Your task to perform on an android device: install app "Google Calendar" Image 0: 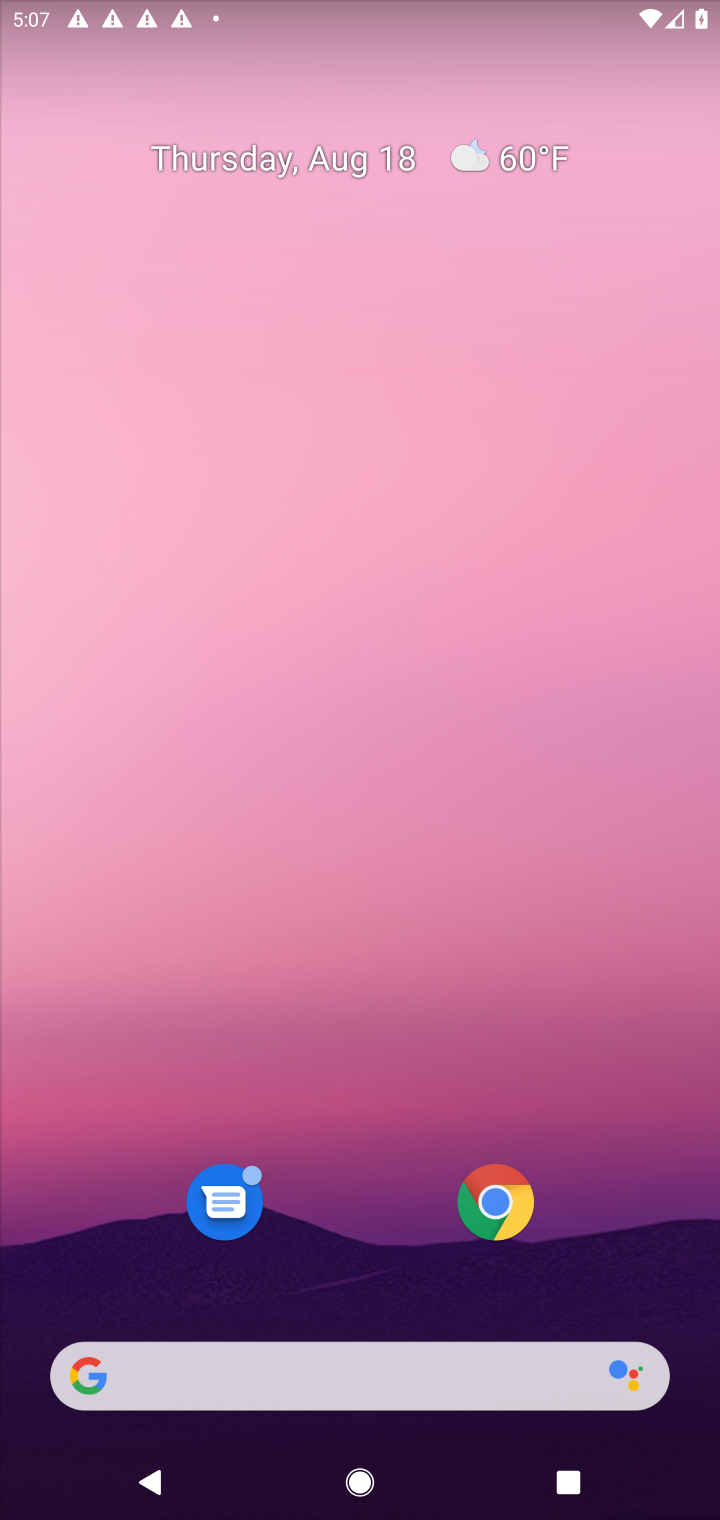
Step 0: drag from (400, 1341) to (348, 339)
Your task to perform on an android device: install app "Google Calendar" Image 1: 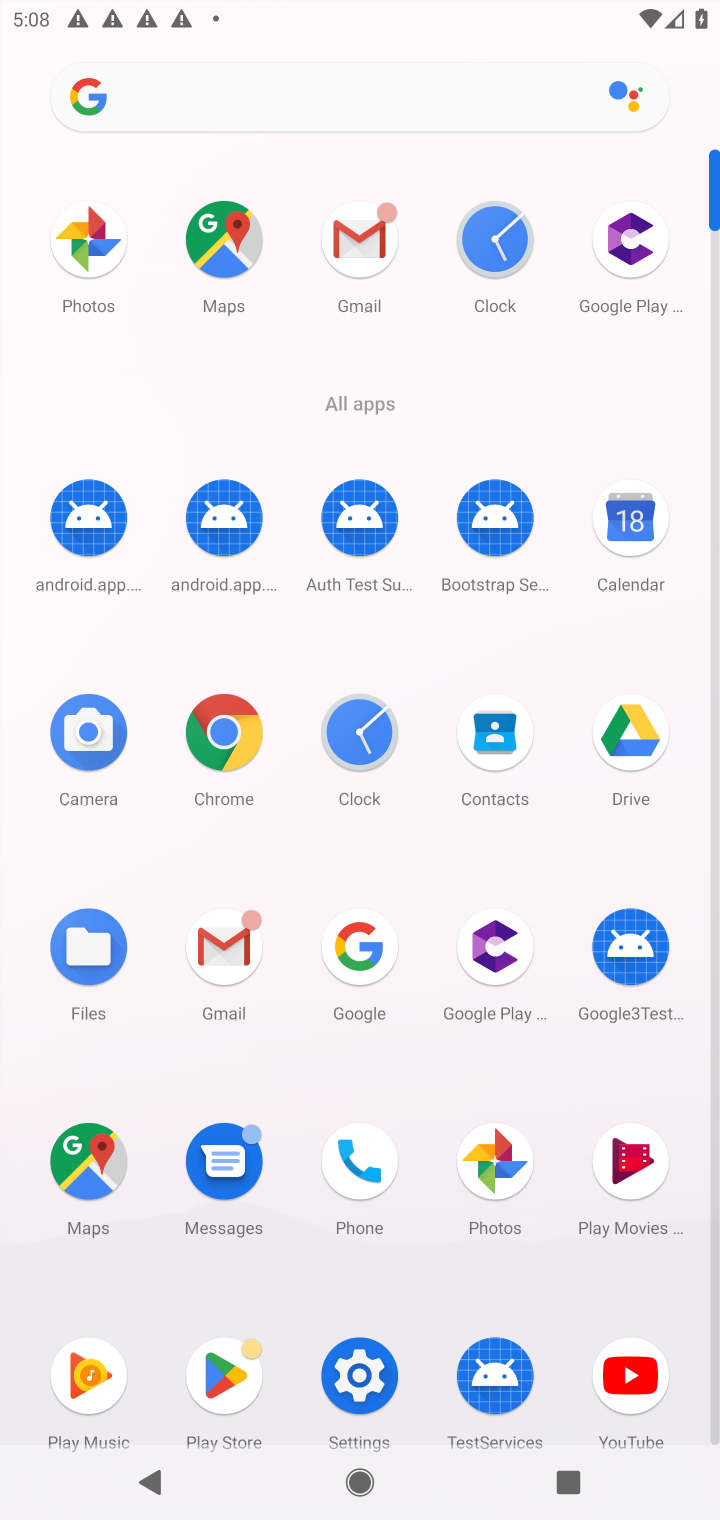
Step 1: click (244, 1370)
Your task to perform on an android device: install app "Google Calendar" Image 2: 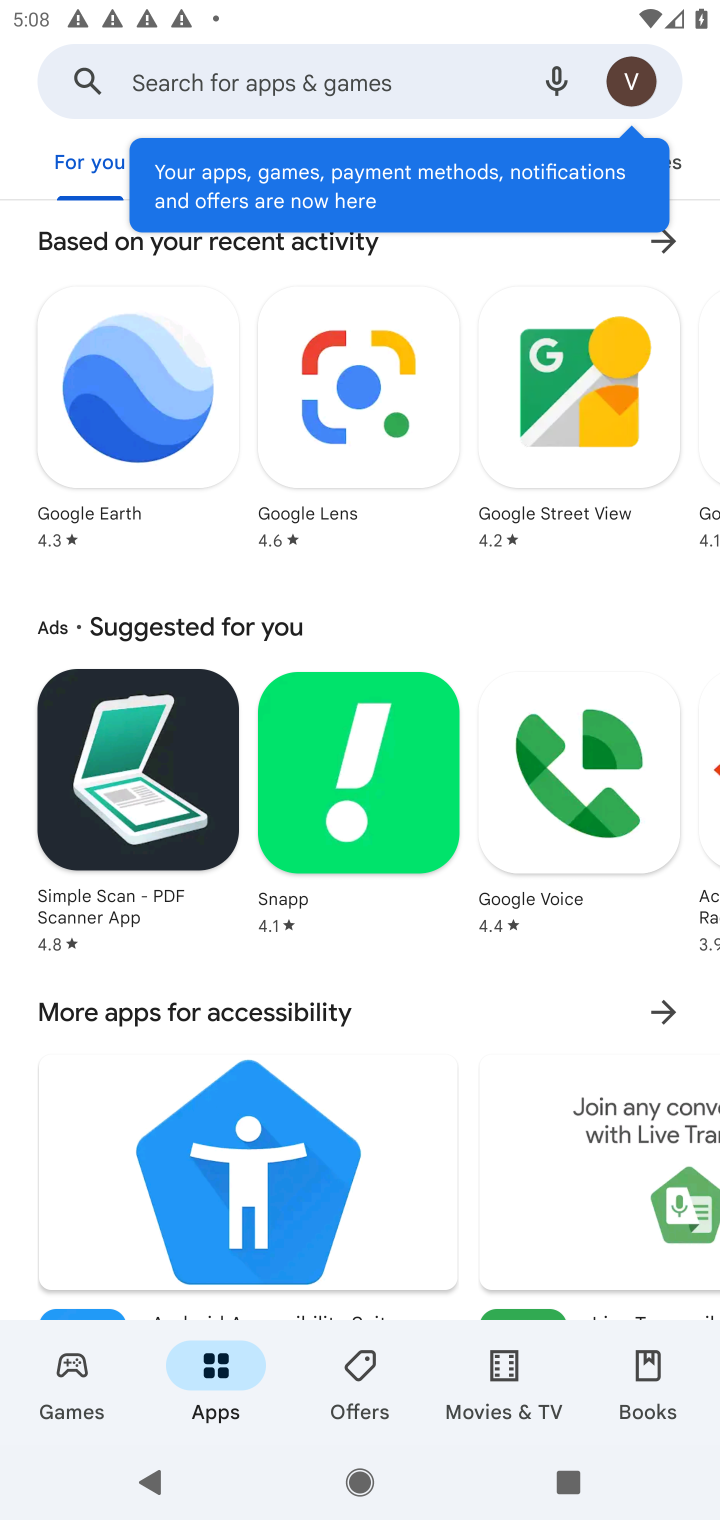
Step 2: click (337, 80)
Your task to perform on an android device: install app "Google Calendar" Image 3: 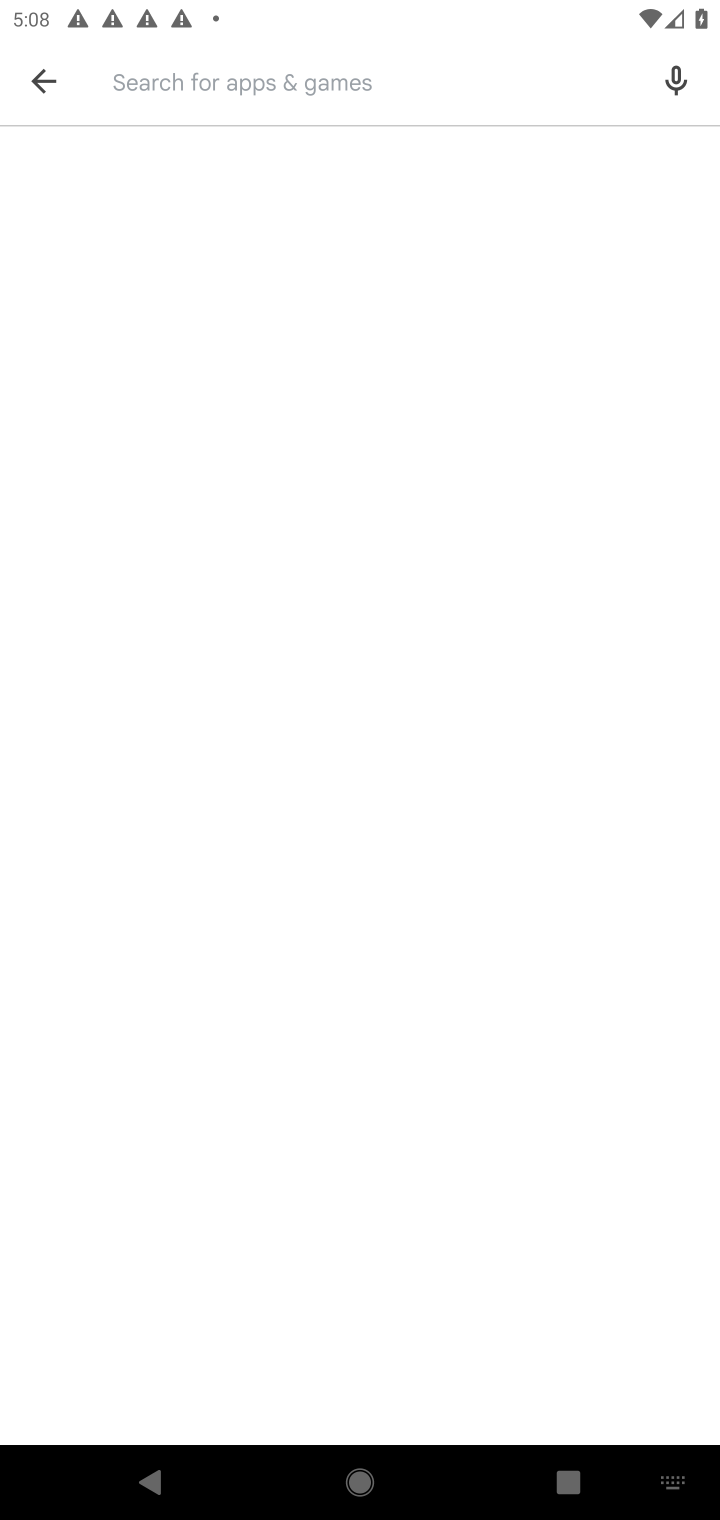
Step 3: type "google claendar"
Your task to perform on an android device: install app "Google Calendar" Image 4: 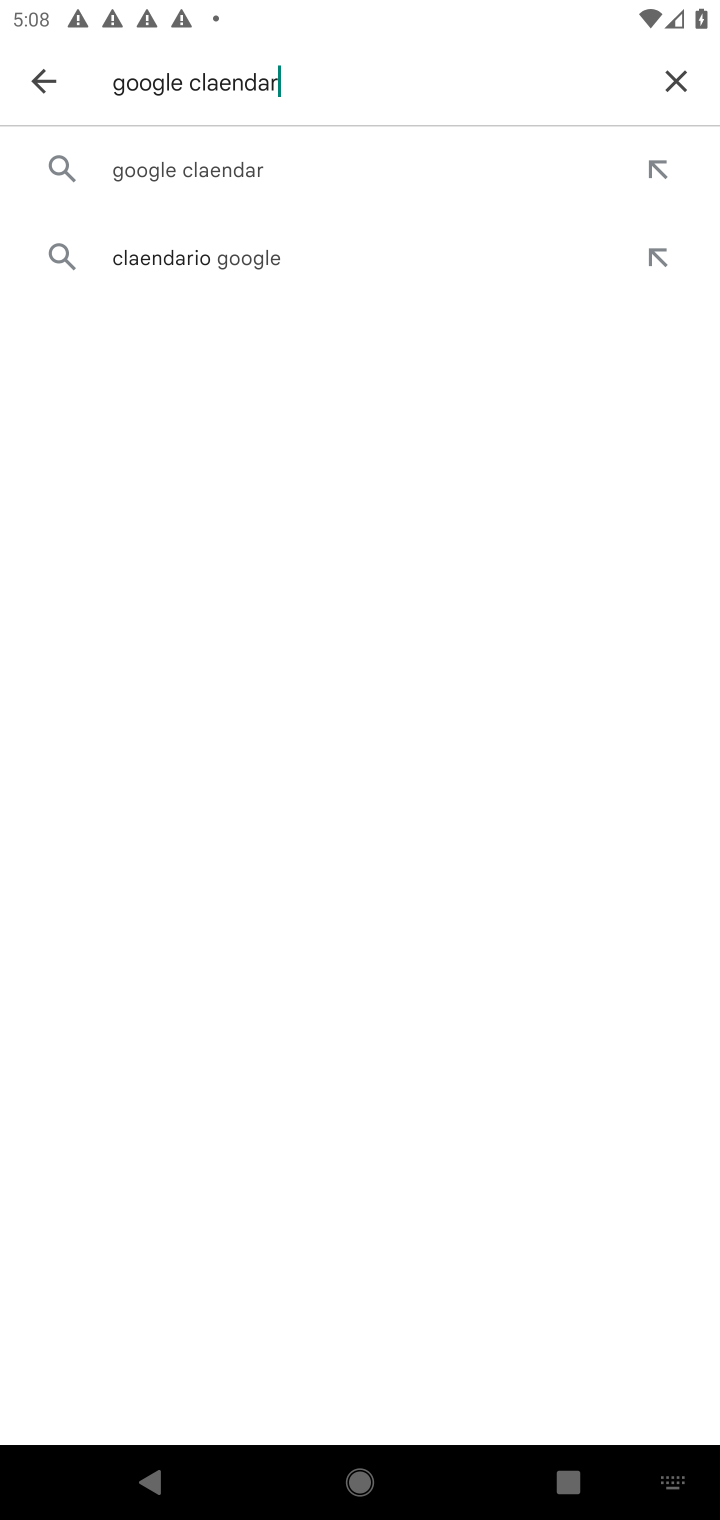
Step 4: click (203, 162)
Your task to perform on an android device: install app "Google Calendar" Image 5: 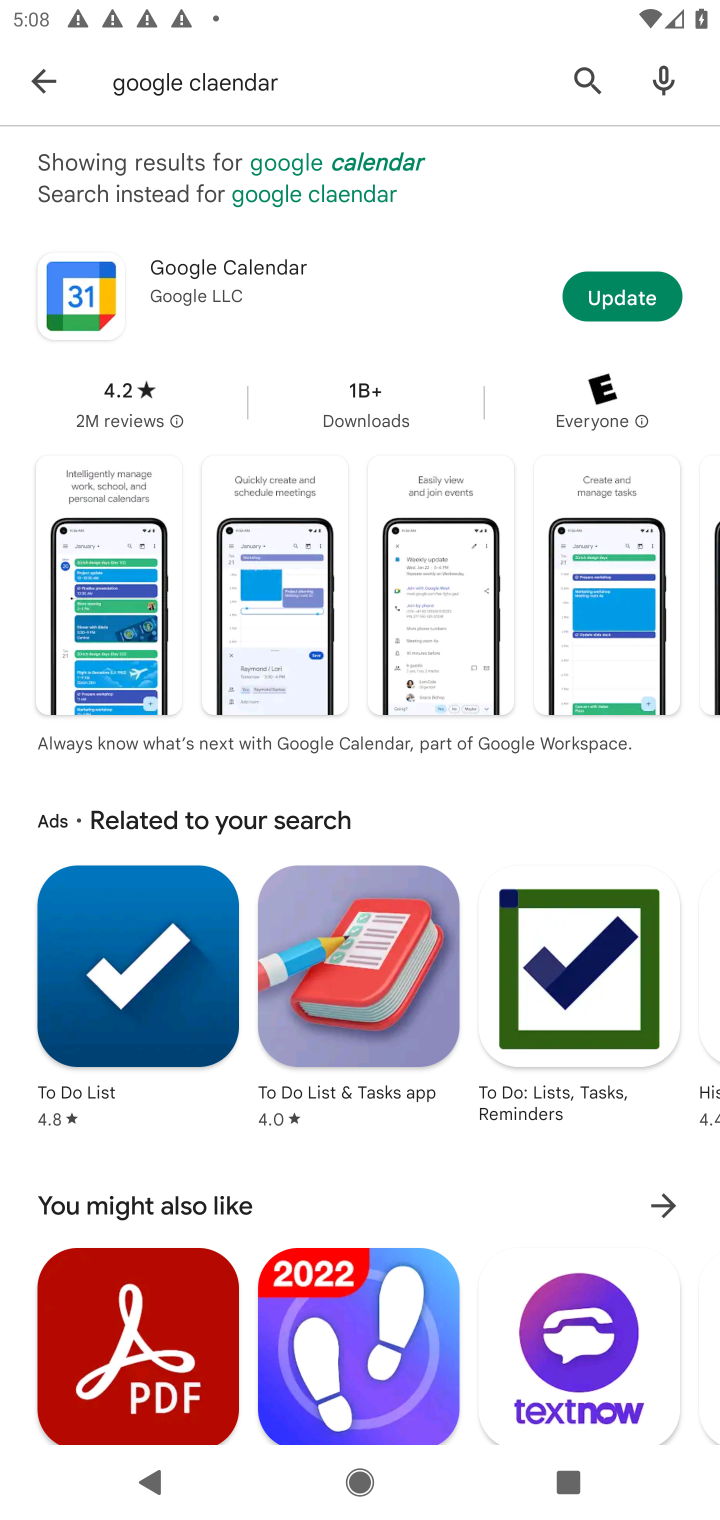
Step 5: click (308, 316)
Your task to perform on an android device: install app "Google Calendar" Image 6: 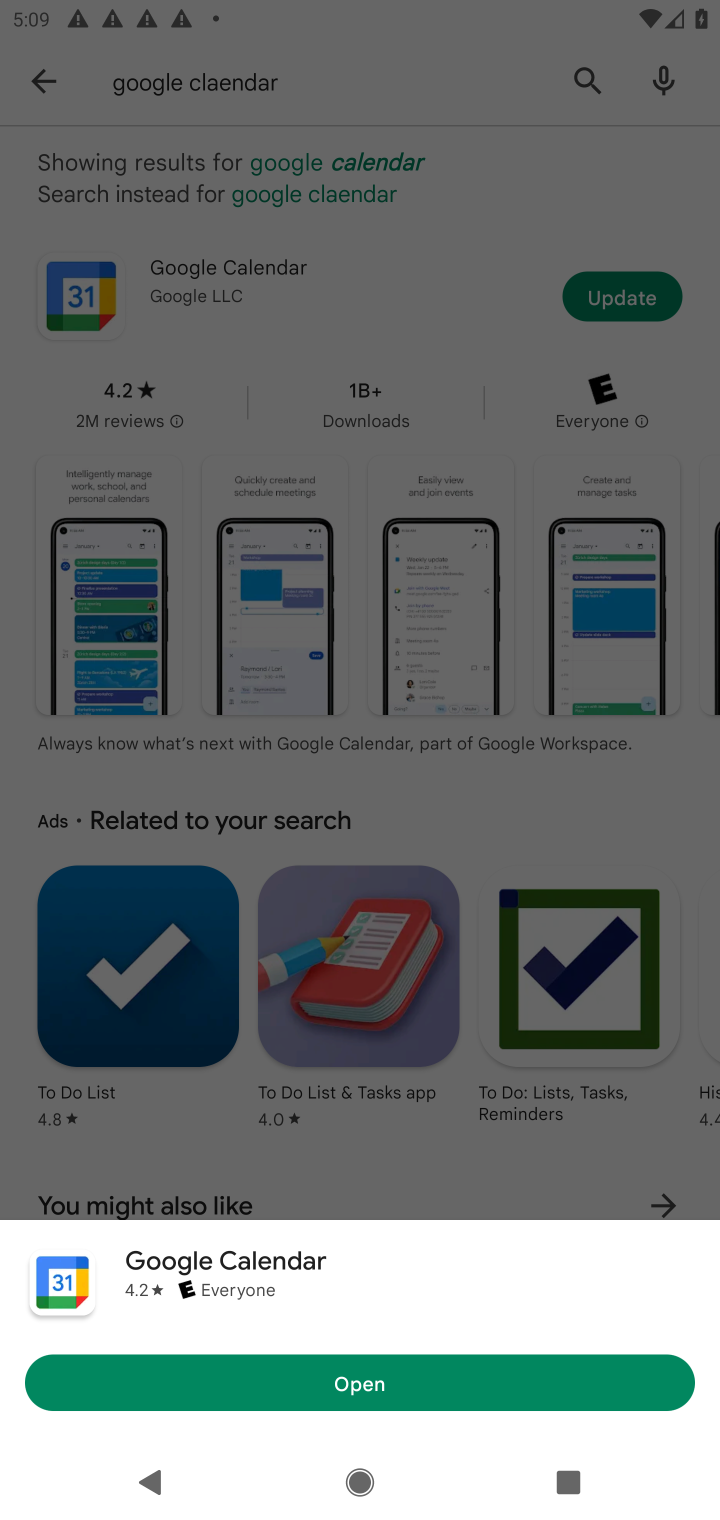
Step 6: task complete